Your task to perform on an android device: open chrome and create a bookmark for the current page Image 0: 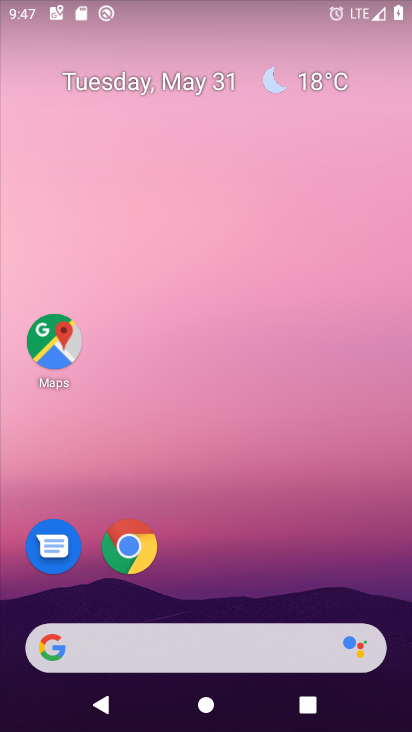
Step 0: click (135, 537)
Your task to perform on an android device: open chrome and create a bookmark for the current page Image 1: 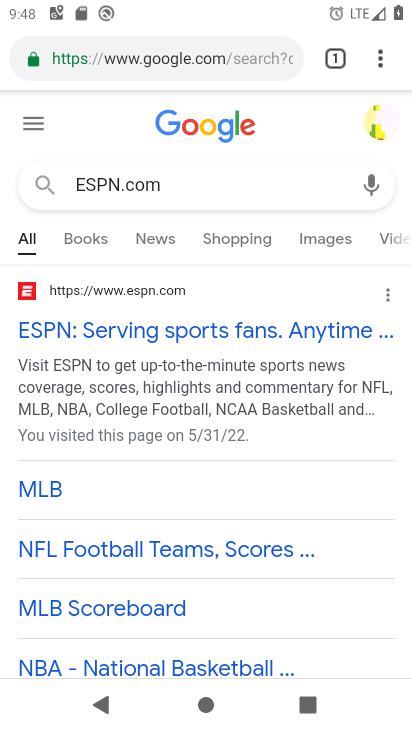
Step 1: click (371, 61)
Your task to perform on an android device: open chrome and create a bookmark for the current page Image 2: 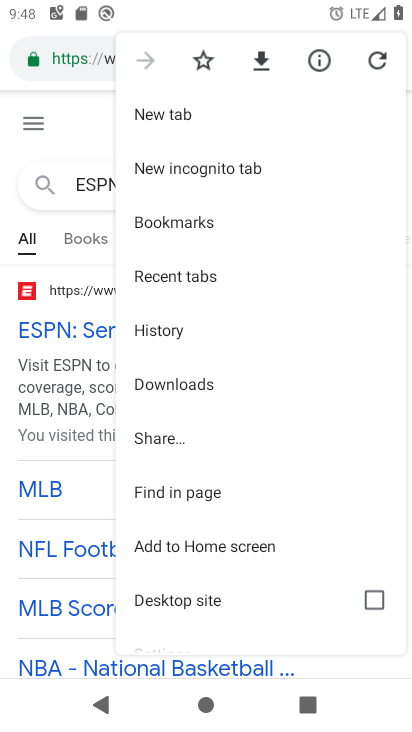
Step 2: click (195, 54)
Your task to perform on an android device: open chrome and create a bookmark for the current page Image 3: 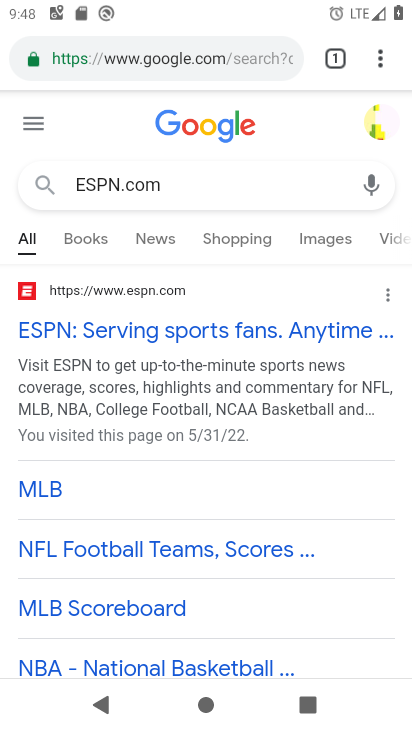
Step 3: task complete